Your task to perform on an android device: Show the shopping cart on costco.com. Search for macbook pro on costco.com, select the first entry, add it to the cart, then select checkout. Image 0: 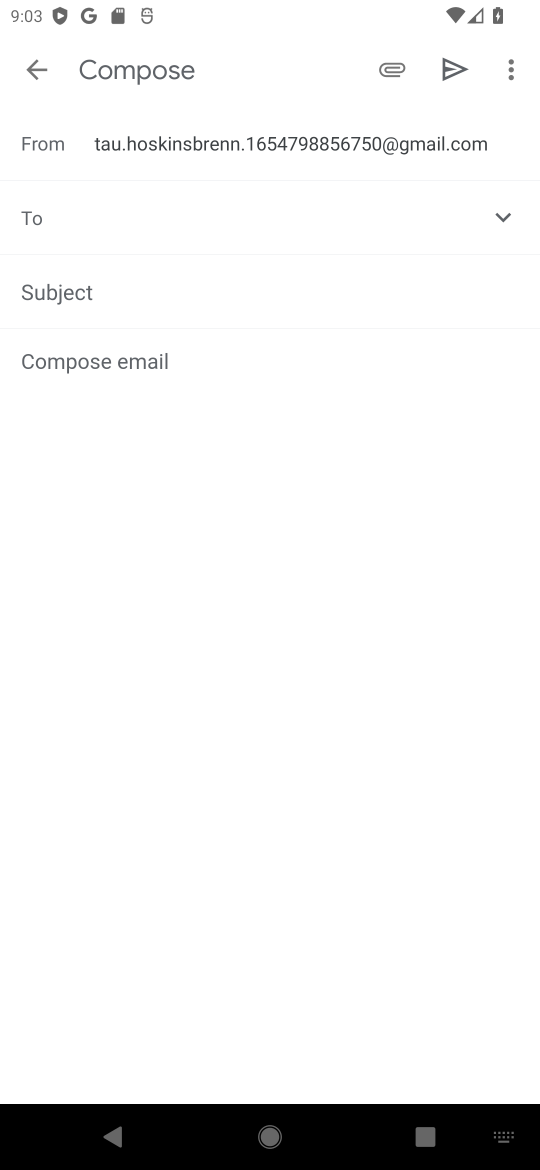
Step 0: press home button
Your task to perform on an android device: Show the shopping cart on costco.com. Search for macbook pro on costco.com, select the first entry, add it to the cart, then select checkout. Image 1: 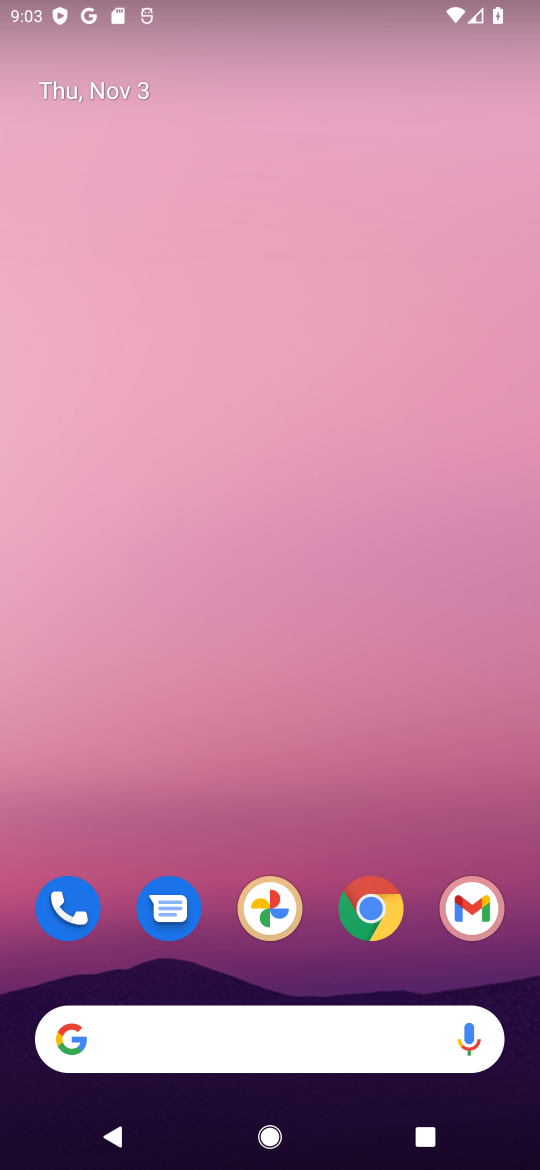
Step 1: click (378, 906)
Your task to perform on an android device: Show the shopping cart on costco.com. Search for macbook pro on costco.com, select the first entry, add it to the cart, then select checkout. Image 2: 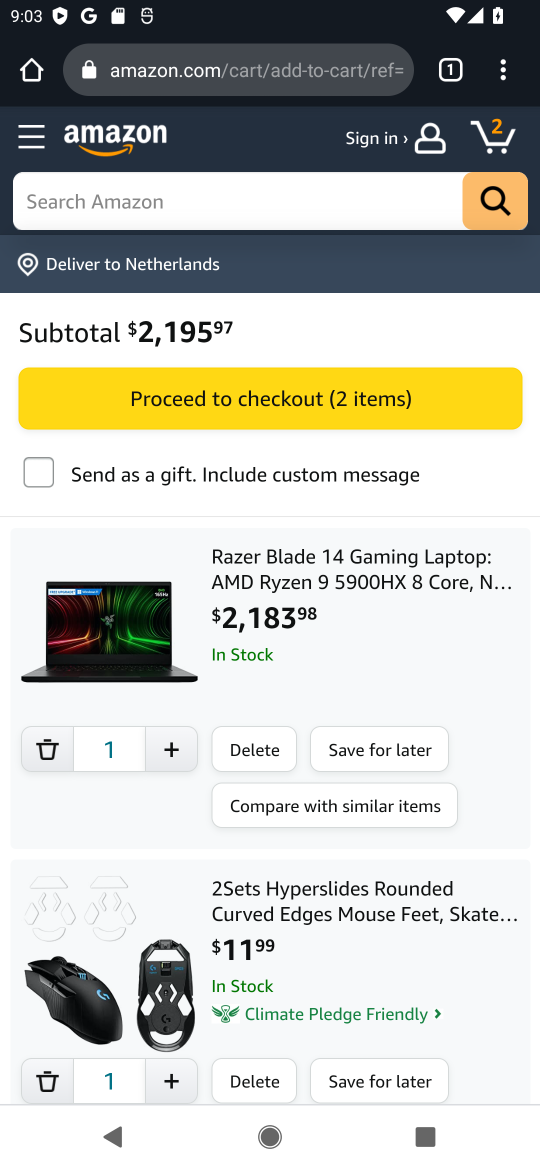
Step 2: click (330, 68)
Your task to perform on an android device: Show the shopping cart on costco.com. Search for macbook pro on costco.com, select the first entry, add it to the cart, then select checkout. Image 3: 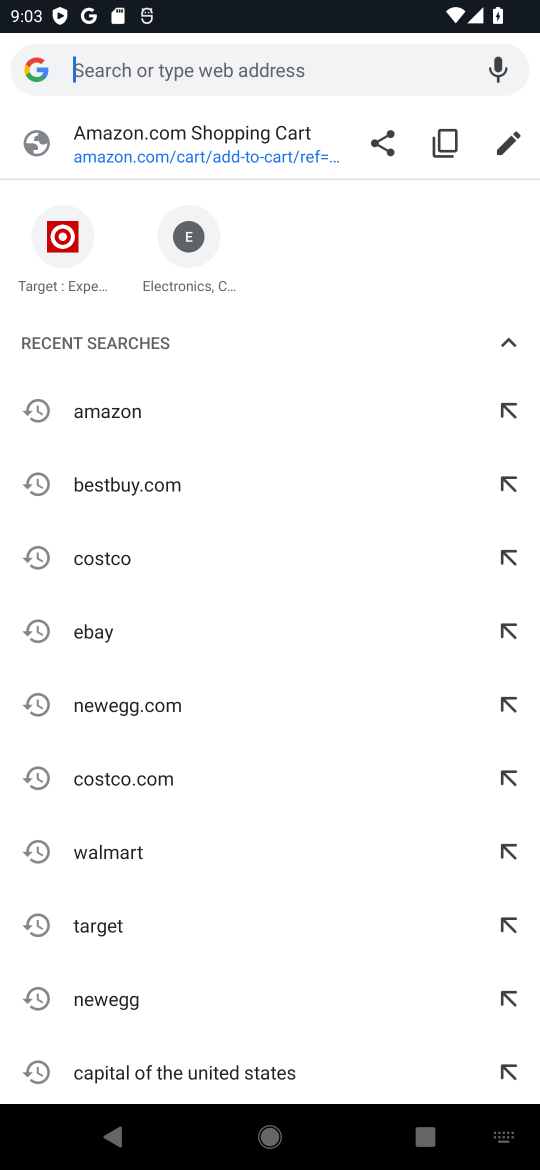
Step 3: type "costco.com"
Your task to perform on an android device: Show the shopping cart on costco.com. Search for macbook pro on costco.com, select the first entry, add it to the cart, then select checkout. Image 4: 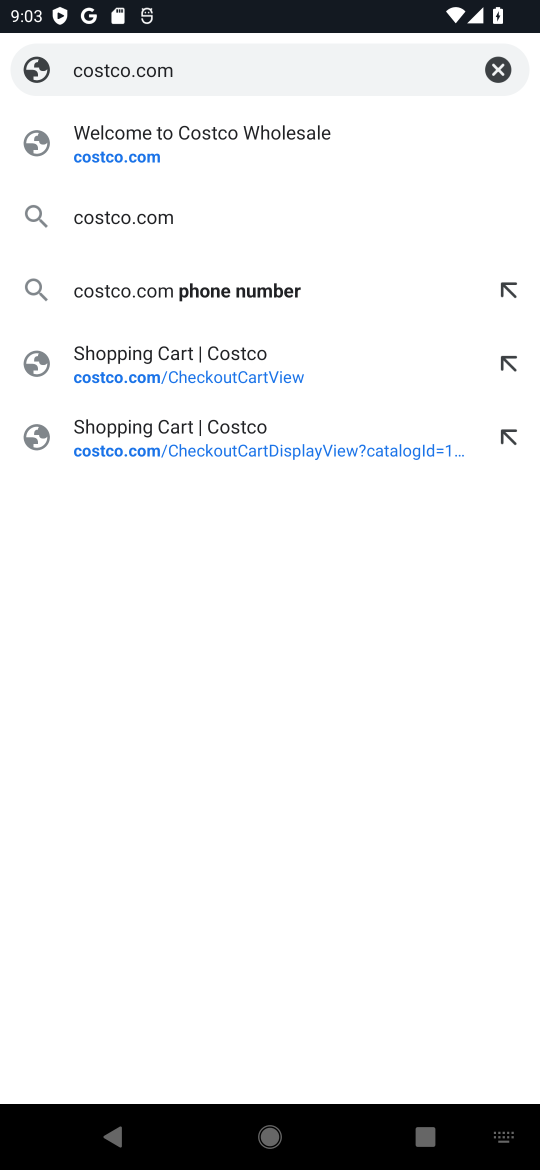
Step 4: click (136, 216)
Your task to perform on an android device: Show the shopping cart on costco.com. Search for macbook pro on costco.com, select the first entry, add it to the cart, then select checkout. Image 5: 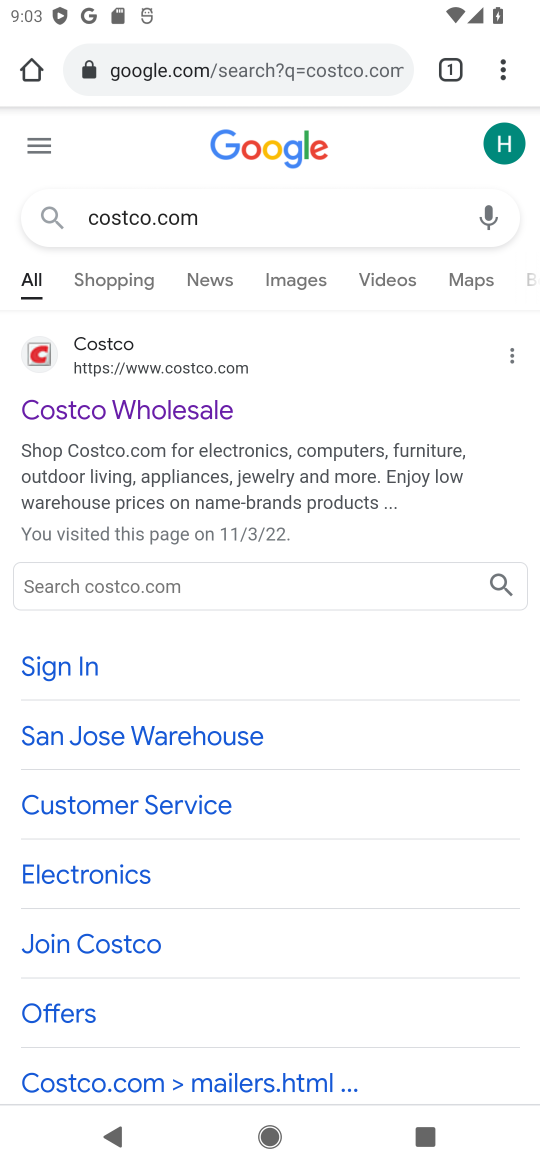
Step 5: click (200, 371)
Your task to perform on an android device: Show the shopping cart on costco.com. Search for macbook pro on costco.com, select the first entry, add it to the cart, then select checkout. Image 6: 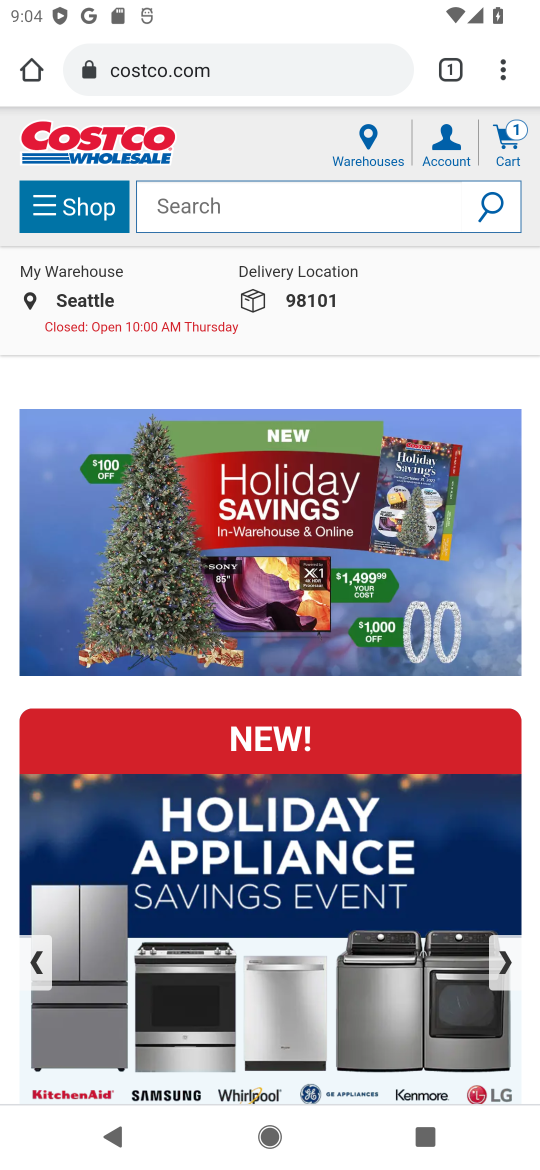
Step 6: click (514, 148)
Your task to perform on an android device: Show the shopping cart on costco.com. Search for macbook pro on costco.com, select the first entry, add it to the cart, then select checkout. Image 7: 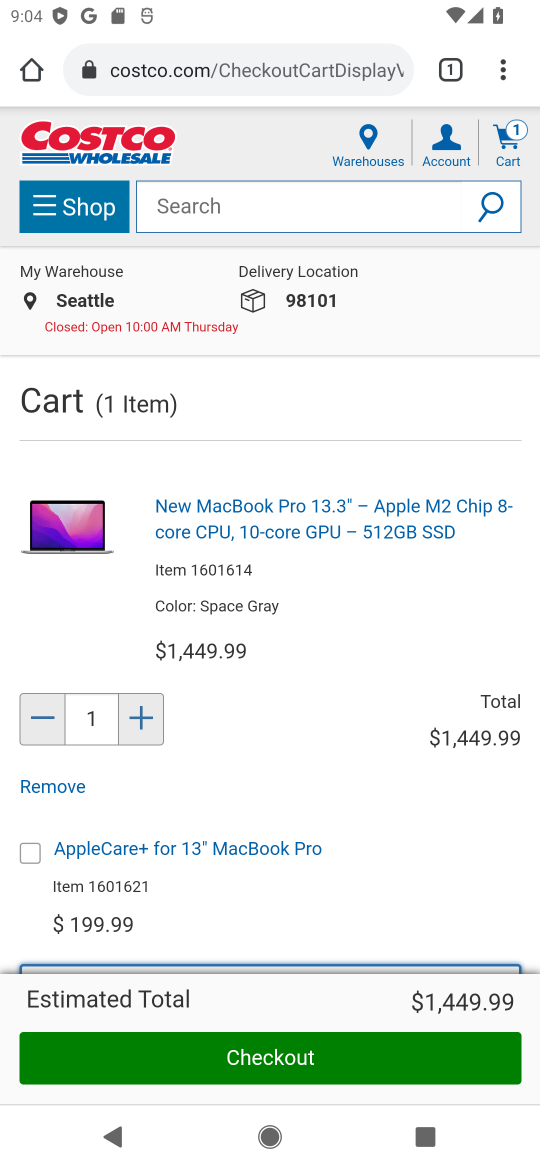
Step 7: click (410, 202)
Your task to perform on an android device: Show the shopping cart on costco.com. Search for macbook pro on costco.com, select the first entry, add it to the cart, then select checkout. Image 8: 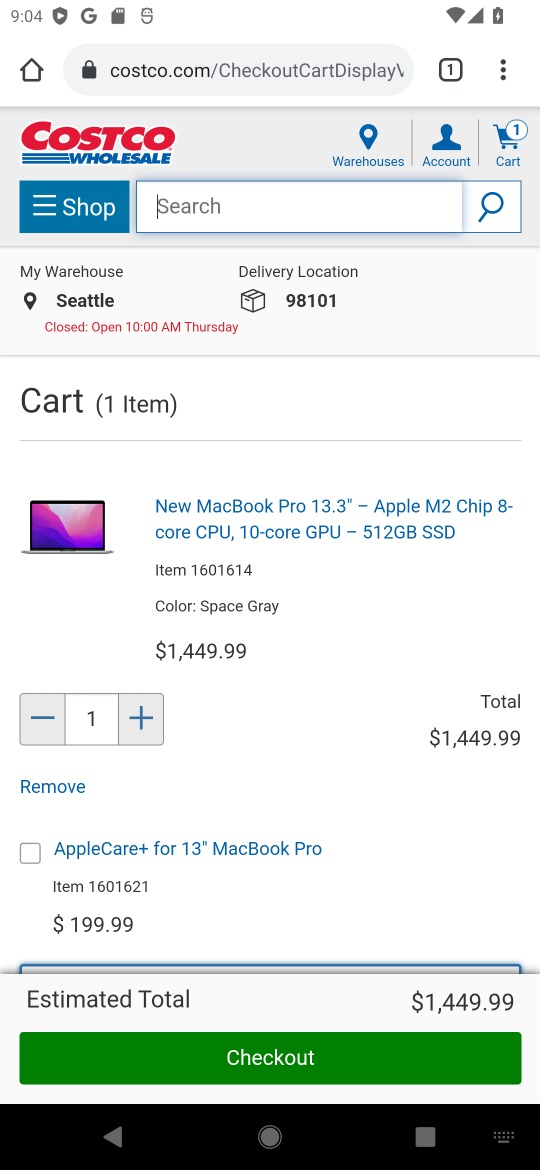
Step 8: type "macbook pro "
Your task to perform on an android device: Show the shopping cart on costco.com. Search for macbook pro on costco.com, select the first entry, add it to the cart, then select checkout. Image 9: 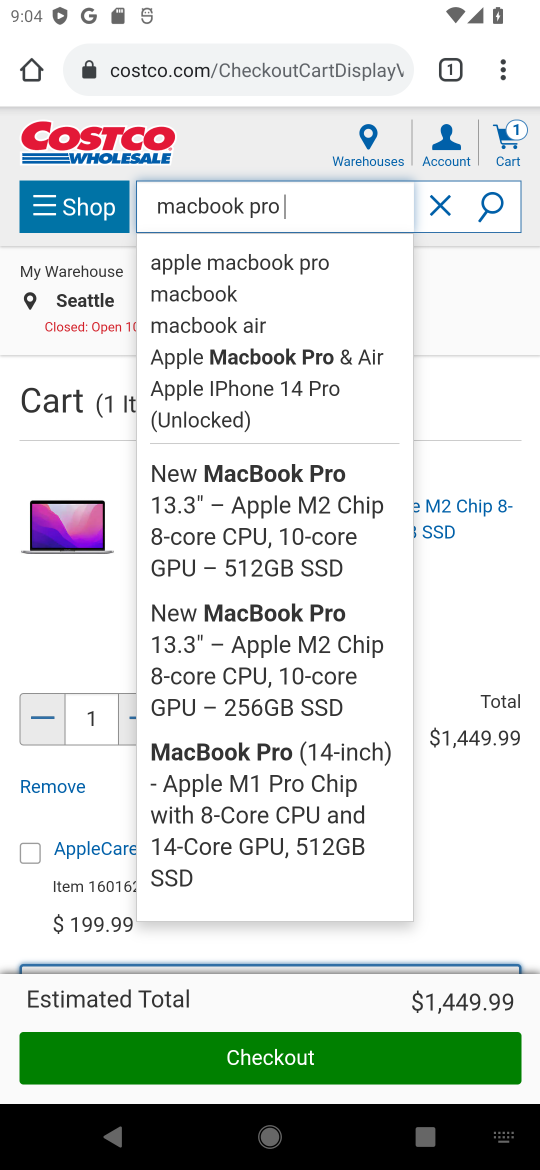
Step 9: click (294, 264)
Your task to perform on an android device: Show the shopping cart on costco.com. Search for macbook pro on costco.com, select the first entry, add it to the cart, then select checkout. Image 10: 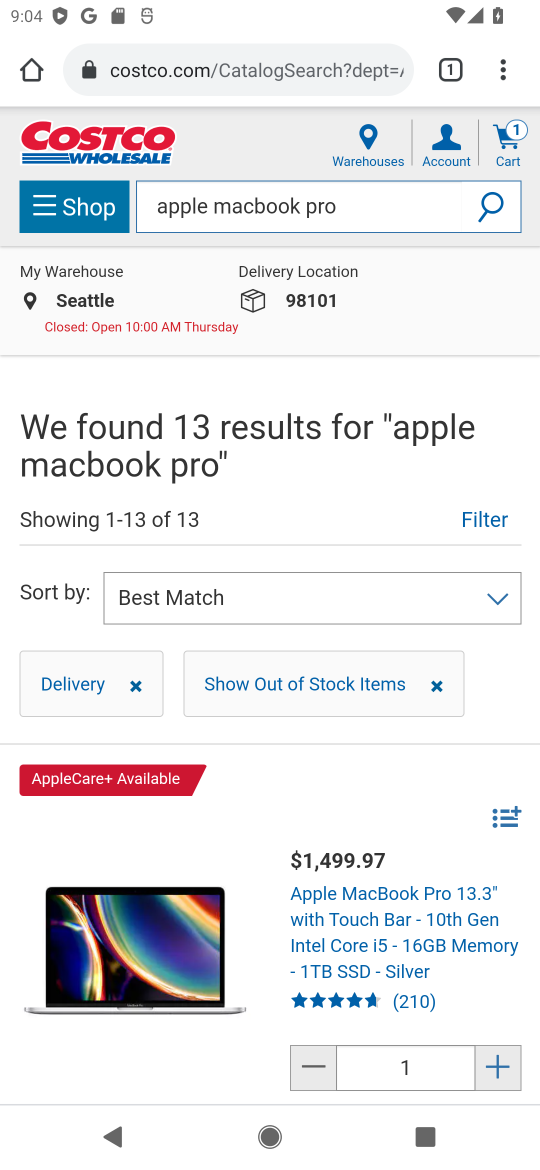
Step 10: click (160, 932)
Your task to perform on an android device: Show the shopping cart on costco.com. Search for macbook pro on costco.com, select the first entry, add it to the cart, then select checkout. Image 11: 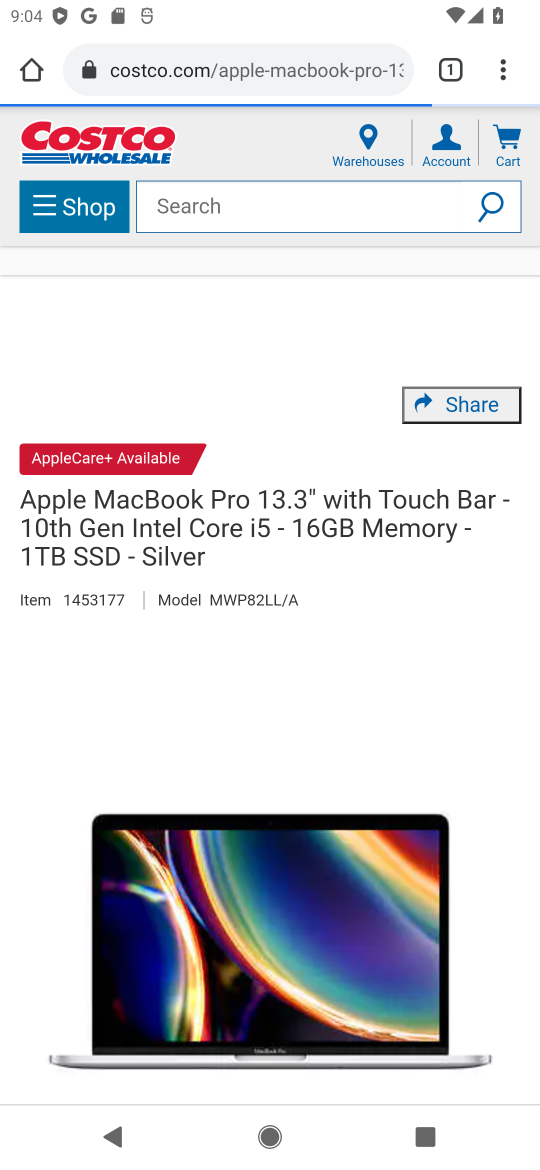
Step 11: drag from (450, 739) to (495, 357)
Your task to perform on an android device: Show the shopping cart on costco.com. Search for macbook pro on costco.com, select the first entry, add it to the cart, then select checkout. Image 12: 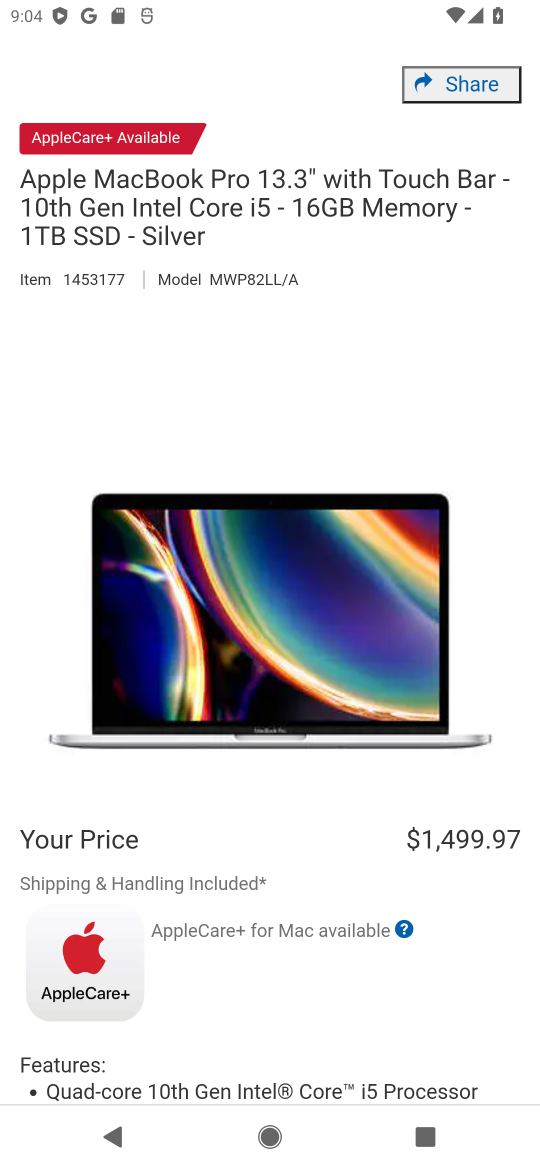
Step 12: drag from (392, 837) to (436, 404)
Your task to perform on an android device: Show the shopping cart on costco.com. Search for macbook pro on costco.com, select the first entry, add it to the cart, then select checkout. Image 13: 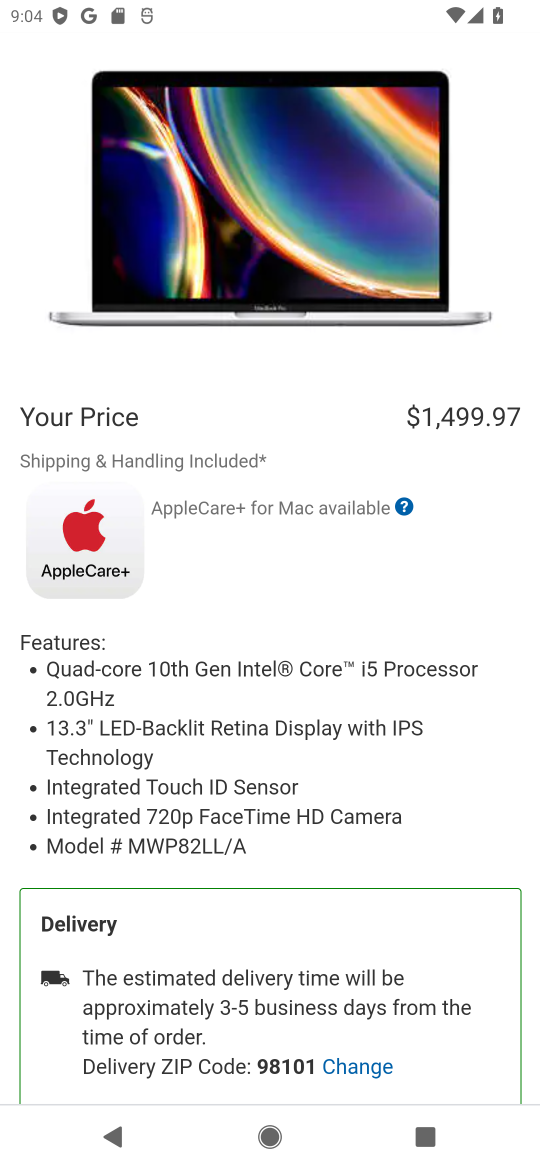
Step 13: drag from (446, 885) to (483, 460)
Your task to perform on an android device: Show the shopping cart on costco.com. Search for macbook pro on costco.com, select the first entry, add it to the cart, then select checkout. Image 14: 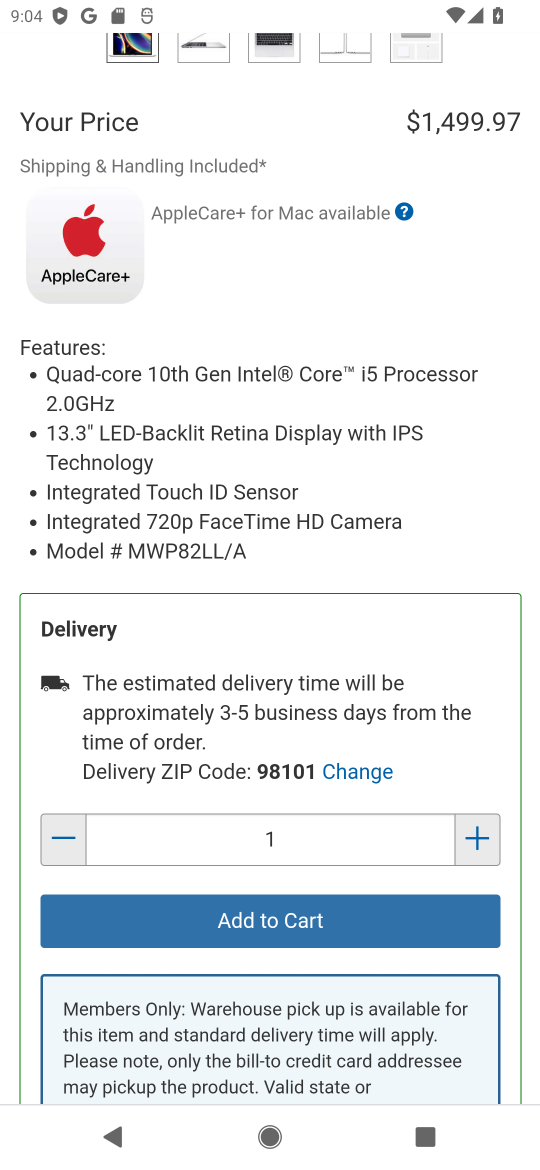
Step 14: click (301, 903)
Your task to perform on an android device: Show the shopping cart on costco.com. Search for macbook pro on costco.com, select the first entry, add it to the cart, then select checkout. Image 15: 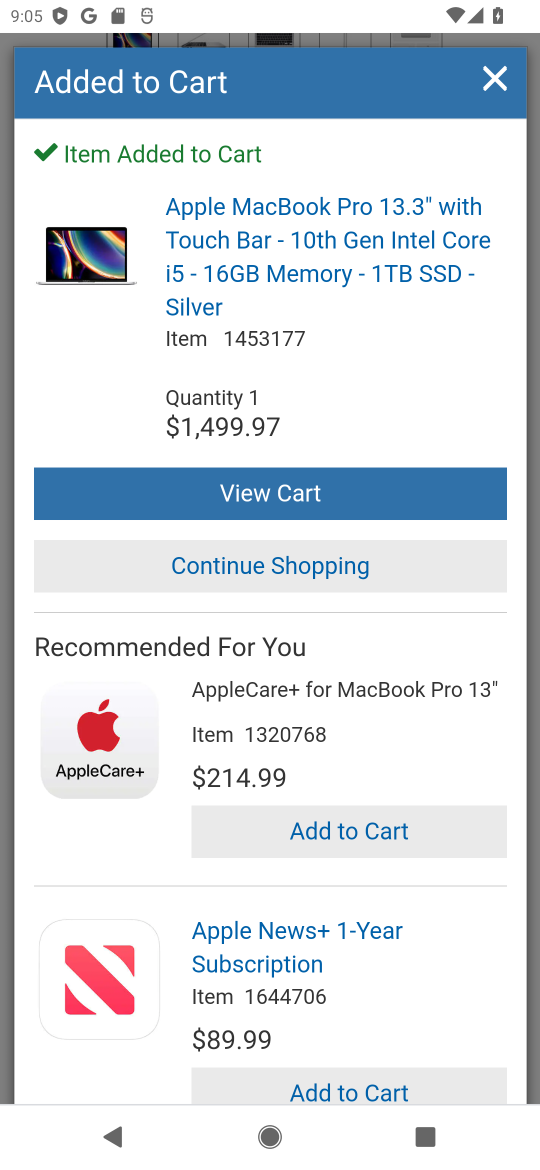
Step 15: click (420, 490)
Your task to perform on an android device: Show the shopping cart on costco.com. Search for macbook pro on costco.com, select the first entry, add it to the cart, then select checkout. Image 16: 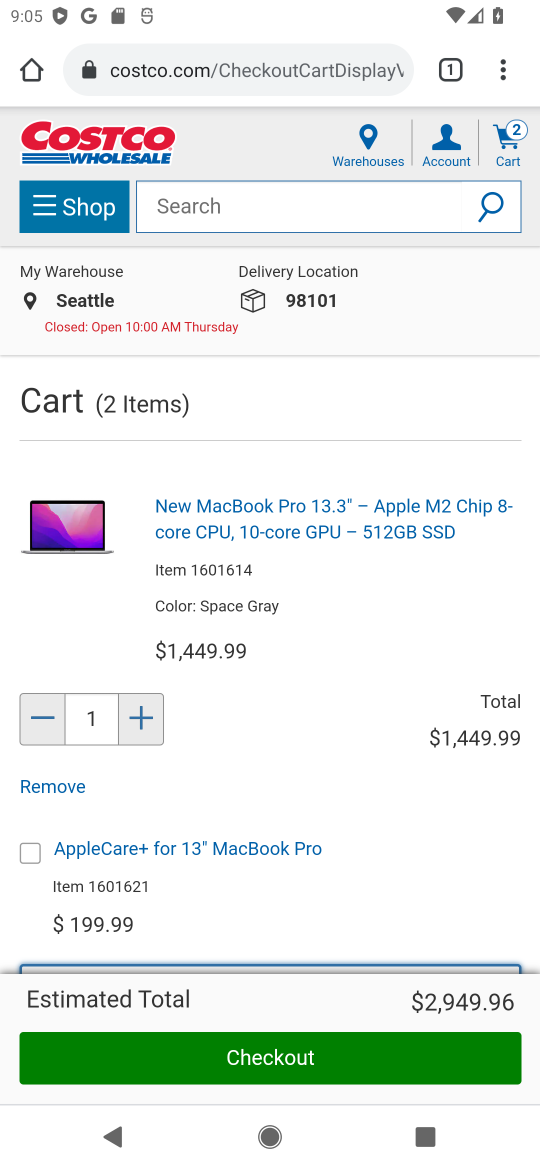
Step 16: click (391, 1049)
Your task to perform on an android device: Show the shopping cart on costco.com. Search for macbook pro on costco.com, select the first entry, add it to the cart, then select checkout. Image 17: 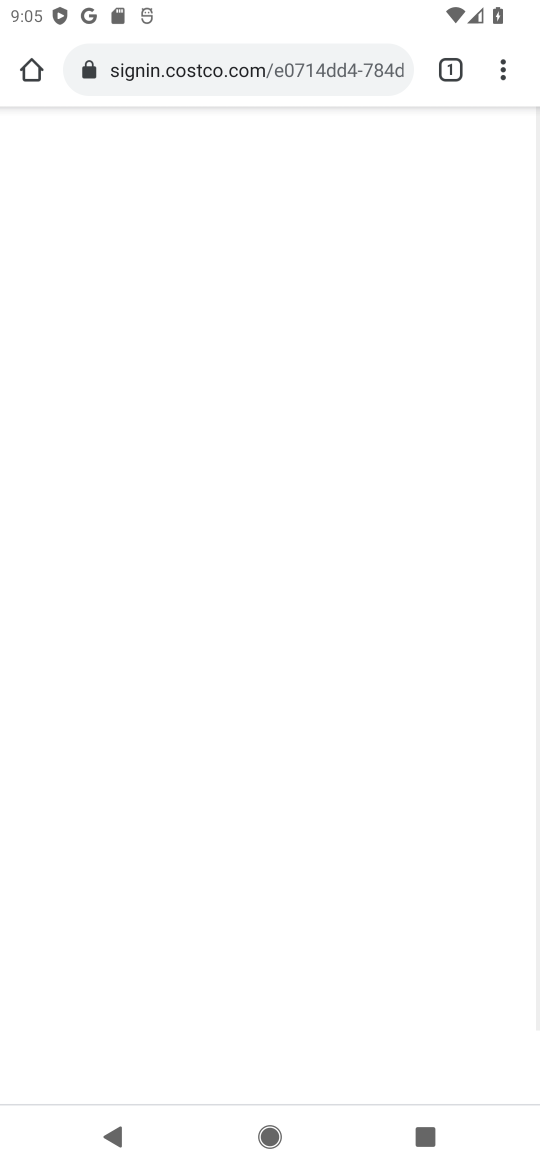
Step 17: task complete